Your task to perform on an android device: toggle location history Image 0: 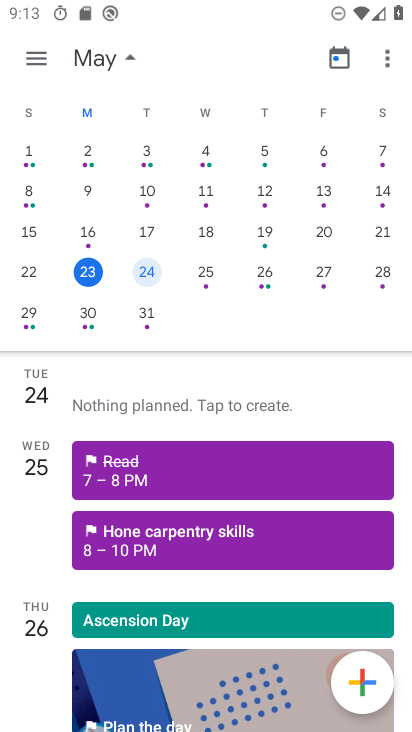
Step 0: press home button
Your task to perform on an android device: toggle location history Image 1: 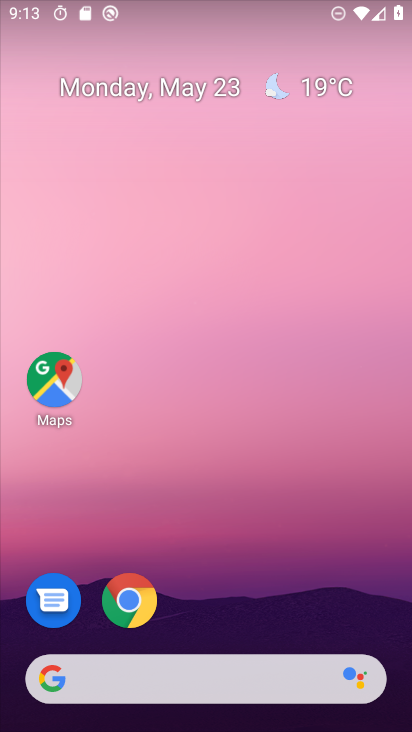
Step 1: drag from (14, 714) to (260, 148)
Your task to perform on an android device: toggle location history Image 2: 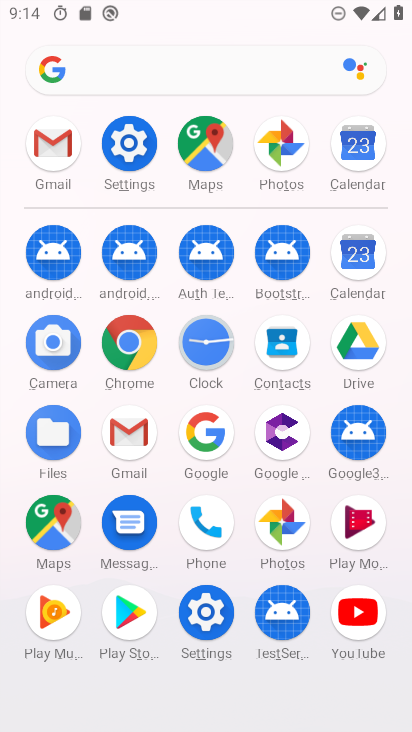
Step 2: click (117, 155)
Your task to perform on an android device: toggle location history Image 3: 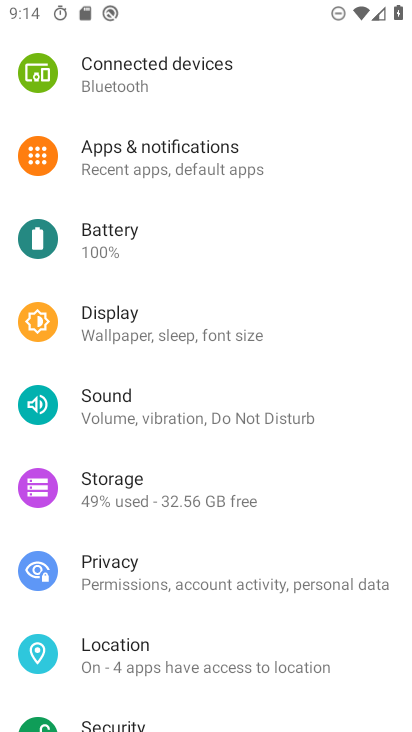
Step 3: click (169, 678)
Your task to perform on an android device: toggle location history Image 4: 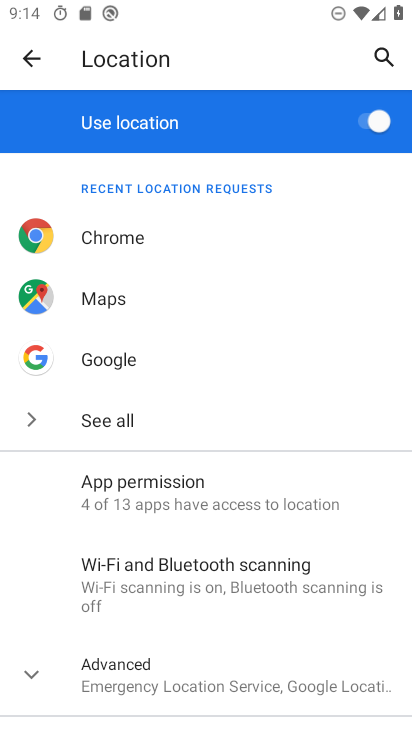
Step 4: click (154, 690)
Your task to perform on an android device: toggle location history Image 5: 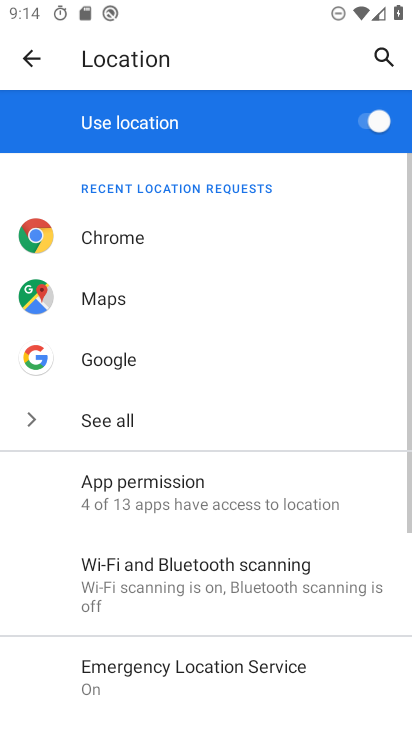
Step 5: drag from (154, 689) to (306, 299)
Your task to perform on an android device: toggle location history Image 6: 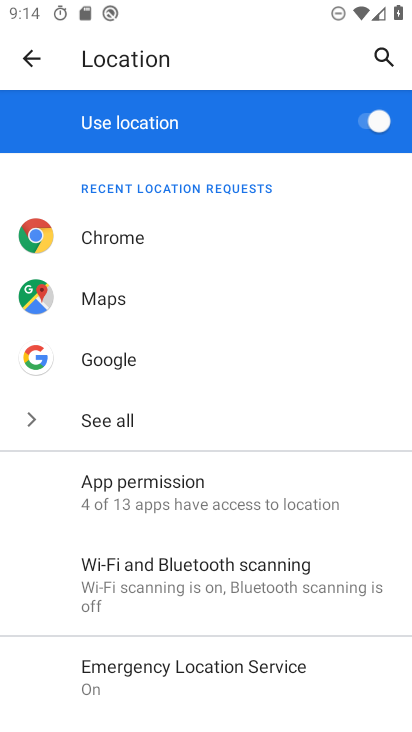
Step 6: drag from (39, 428) to (205, 90)
Your task to perform on an android device: toggle location history Image 7: 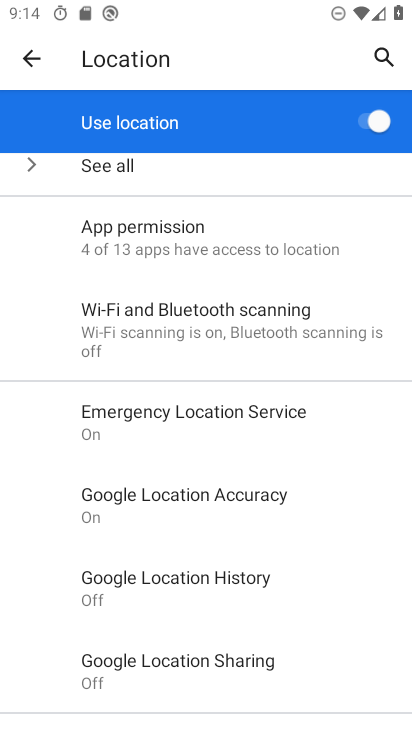
Step 7: click (215, 594)
Your task to perform on an android device: toggle location history Image 8: 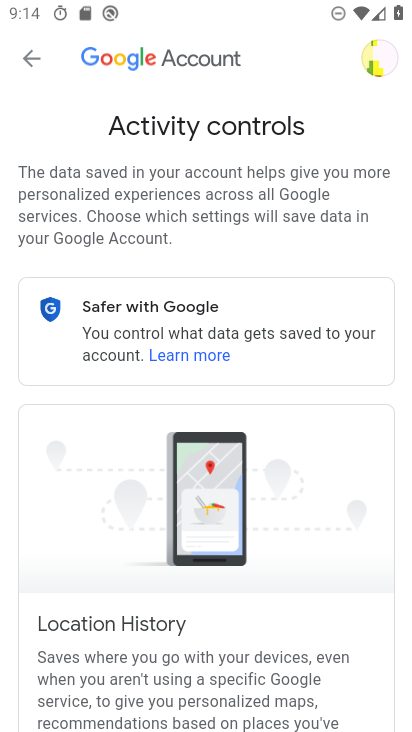
Step 8: drag from (66, 639) to (256, 43)
Your task to perform on an android device: toggle location history Image 9: 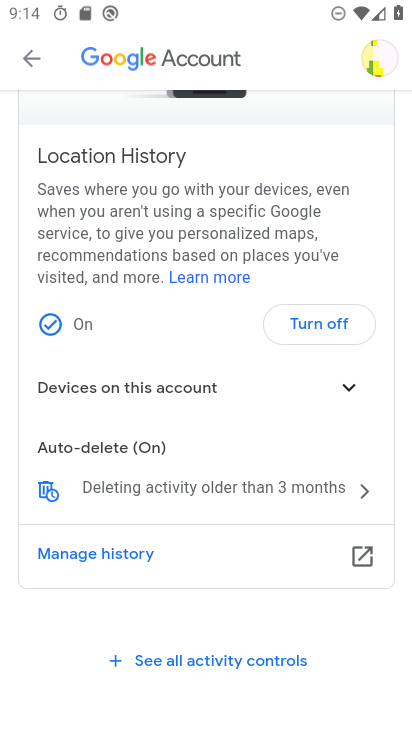
Step 9: click (301, 327)
Your task to perform on an android device: toggle location history Image 10: 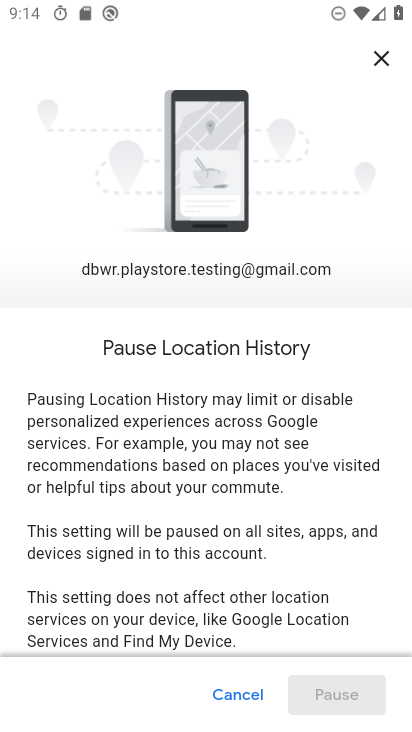
Step 10: drag from (223, 607) to (361, 30)
Your task to perform on an android device: toggle location history Image 11: 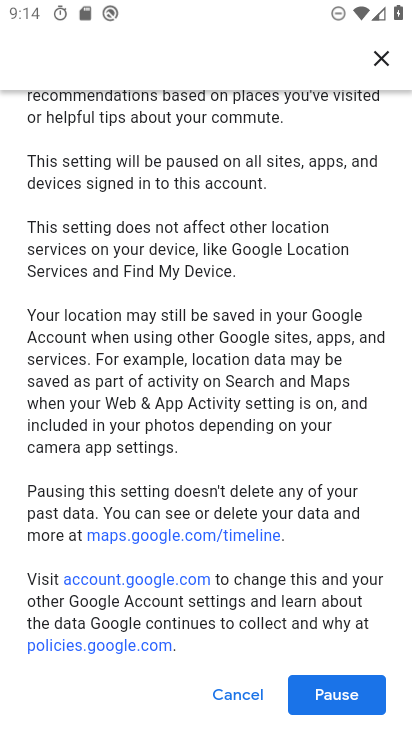
Step 11: click (330, 695)
Your task to perform on an android device: toggle location history Image 12: 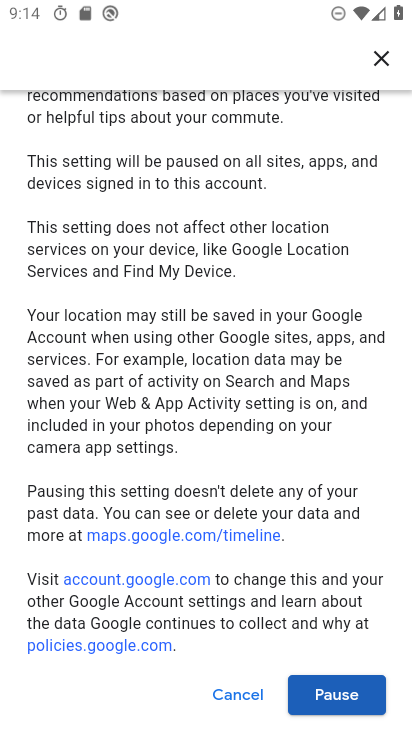
Step 12: click (325, 697)
Your task to perform on an android device: toggle location history Image 13: 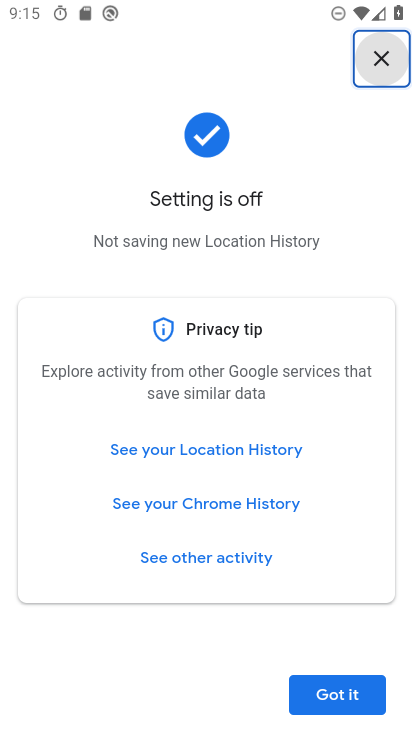
Step 13: click (353, 696)
Your task to perform on an android device: toggle location history Image 14: 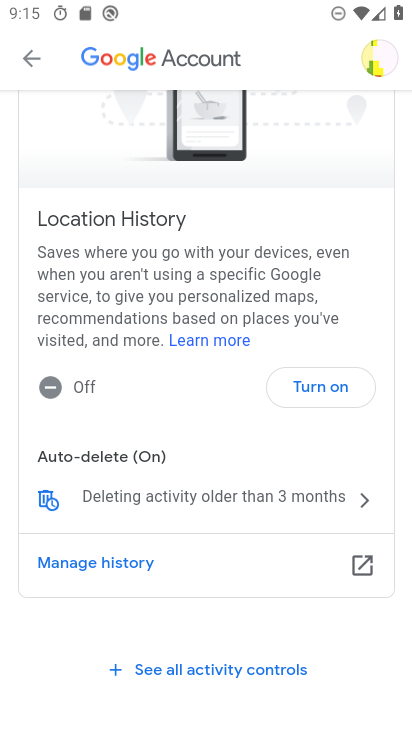
Step 14: task complete